Your task to perform on an android device: turn on wifi Image 0: 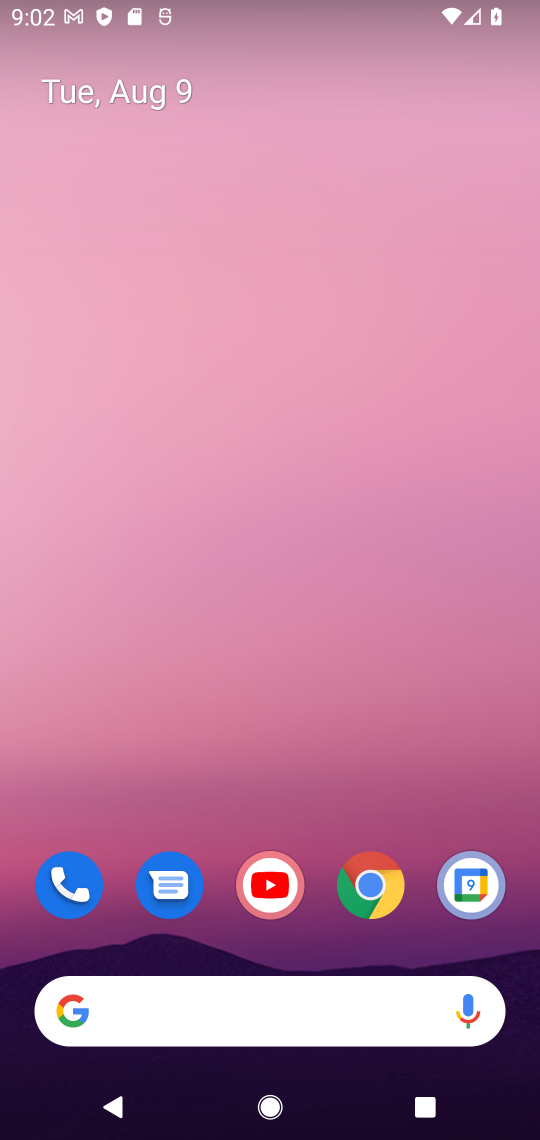
Step 0: drag from (302, 786) to (319, 118)
Your task to perform on an android device: turn on wifi Image 1: 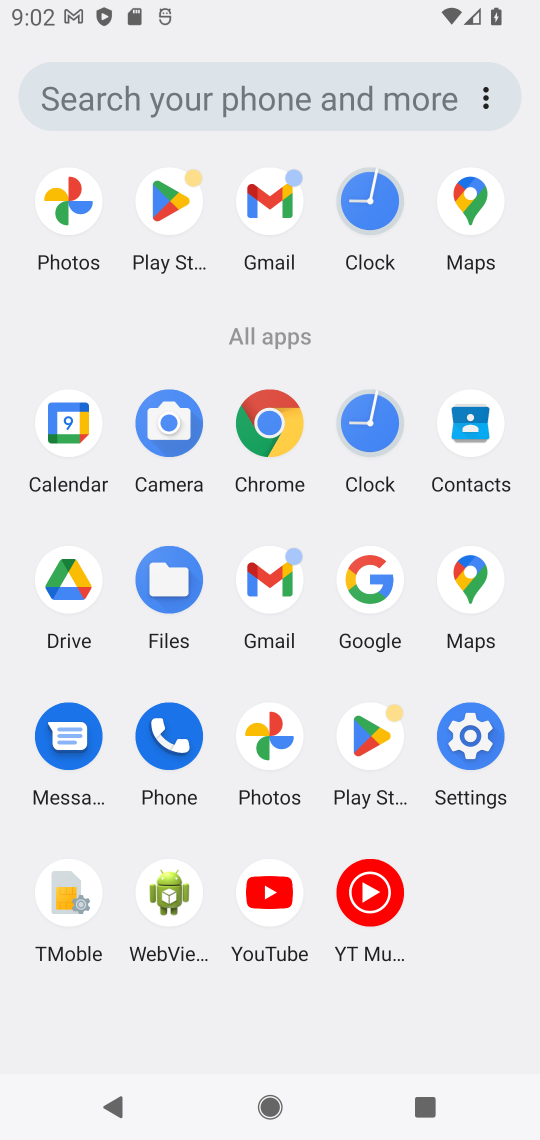
Step 1: click (480, 747)
Your task to perform on an android device: turn on wifi Image 2: 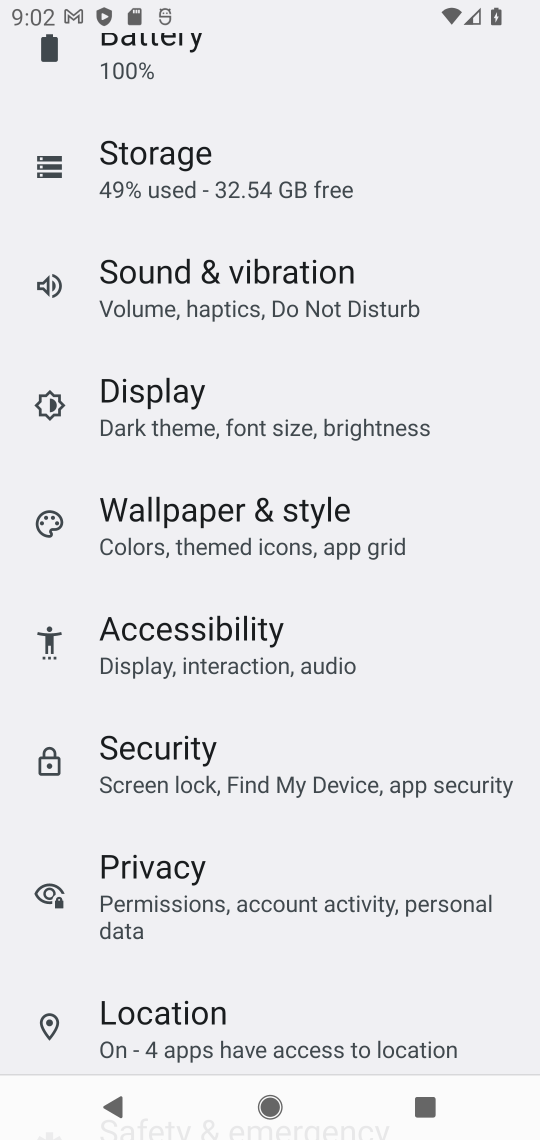
Step 2: drag from (203, 165) to (232, 556)
Your task to perform on an android device: turn on wifi Image 3: 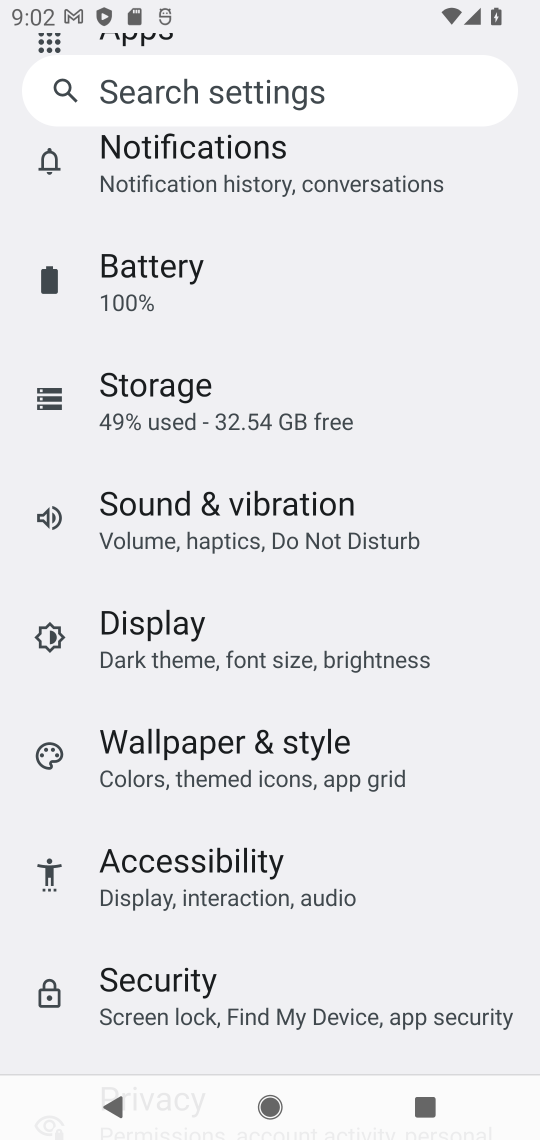
Step 3: drag from (336, 231) to (346, 629)
Your task to perform on an android device: turn on wifi Image 4: 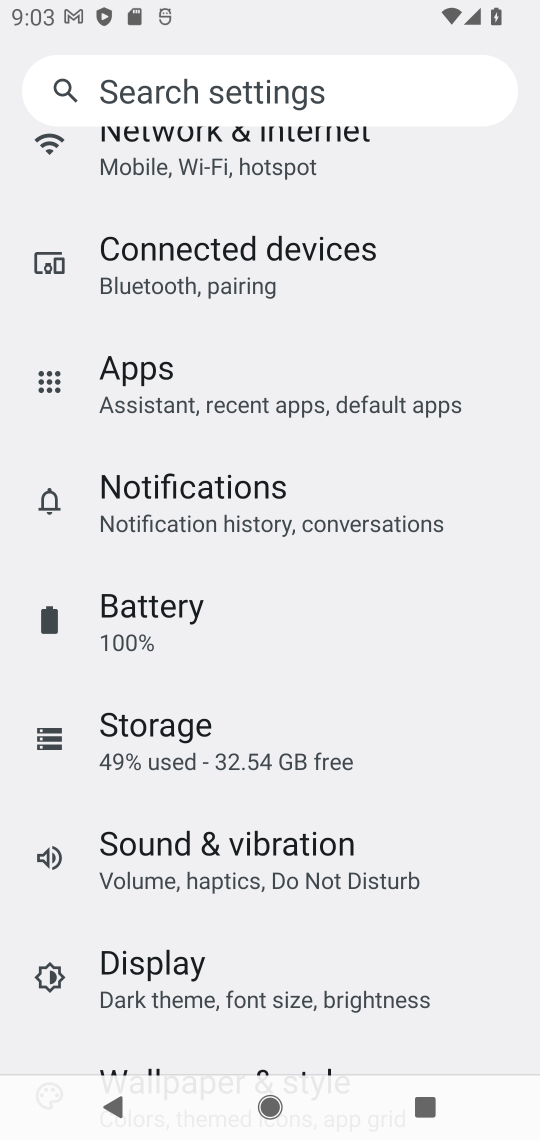
Step 4: click (309, 149)
Your task to perform on an android device: turn on wifi Image 5: 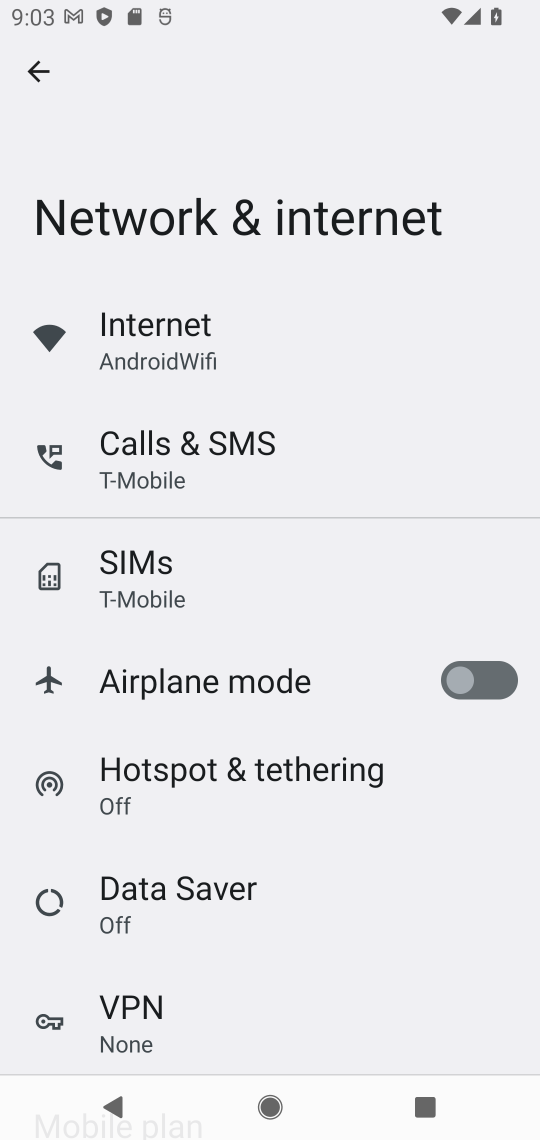
Step 5: click (157, 326)
Your task to perform on an android device: turn on wifi Image 6: 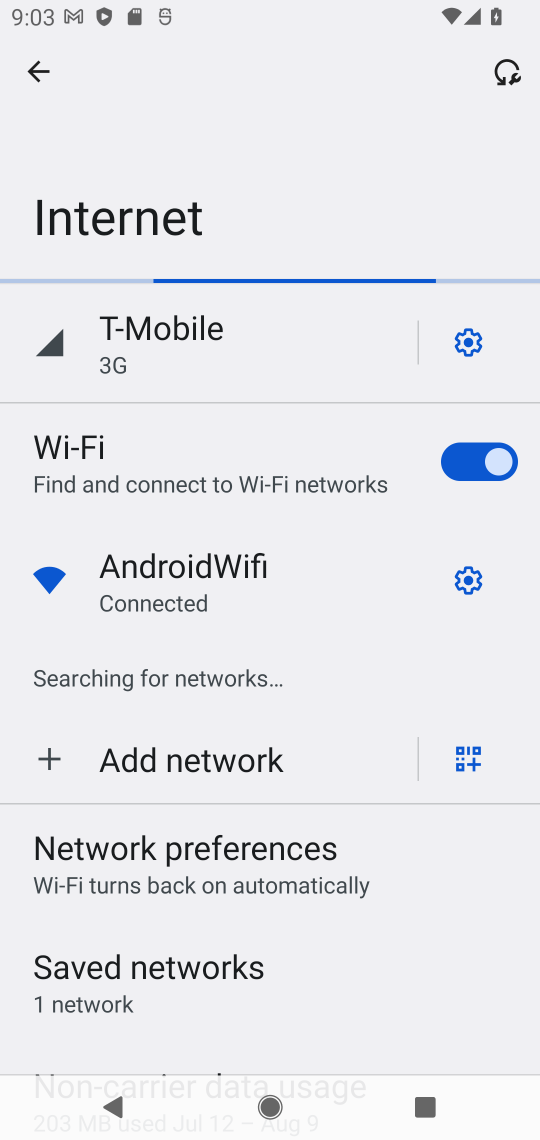
Step 6: task complete